Your task to perform on an android device: change notifications settings Image 0: 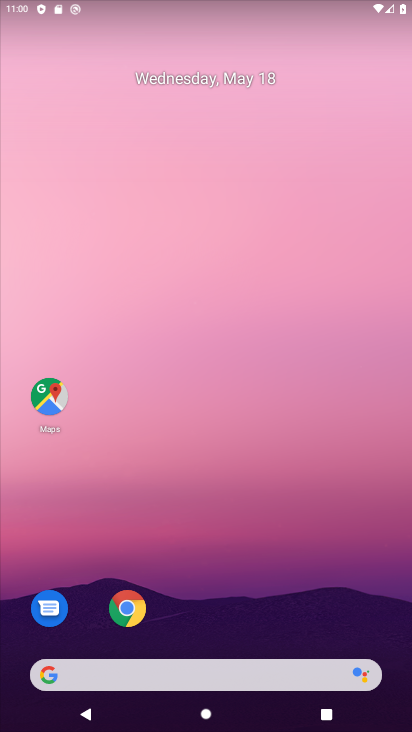
Step 0: drag from (228, 571) to (239, 6)
Your task to perform on an android device: change notifications settings Image 1: 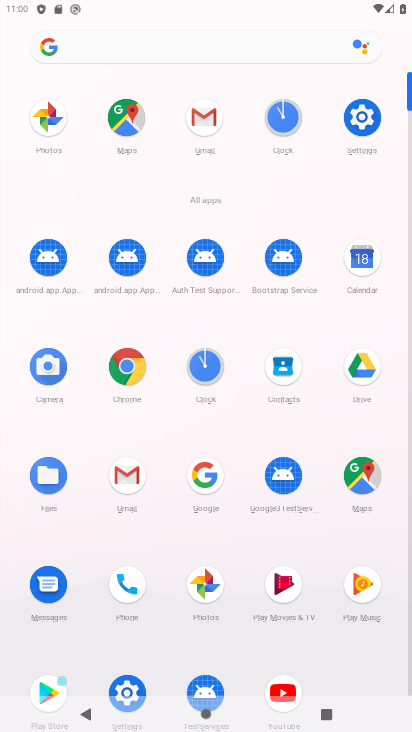
Step 1: click (362, 116)
Your task to perform on an android device: change notifications settings Image 2: 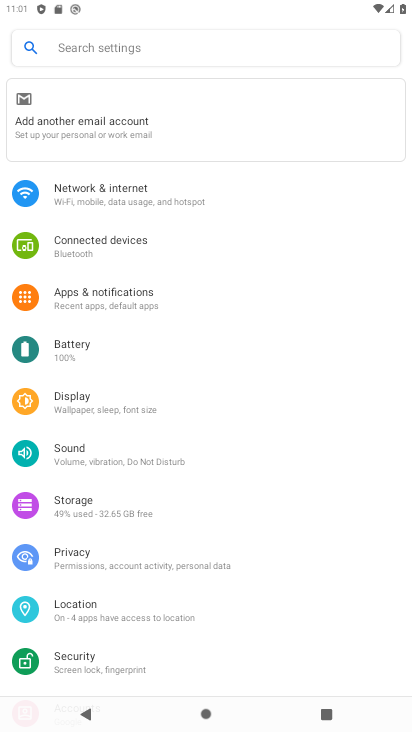
Step 2: click (125, 301)
Your task to perform on an android device: change notifications settings Image 3: 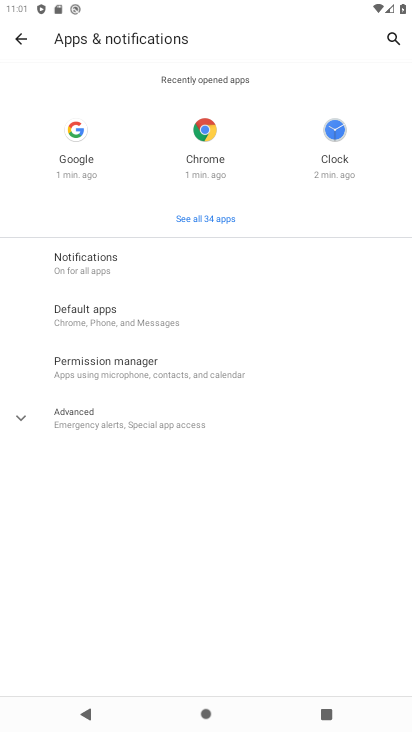
Step 3: click (90, 256)
Your task to perform on an android device: change notifications settings Image 4: 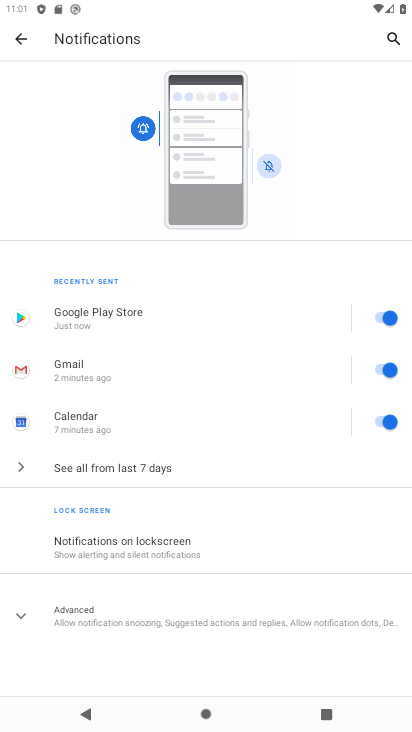
Step 4: drag from (149, 581) to (225, 488)
Your task to perform on an android device: change notifications settings Image 5: 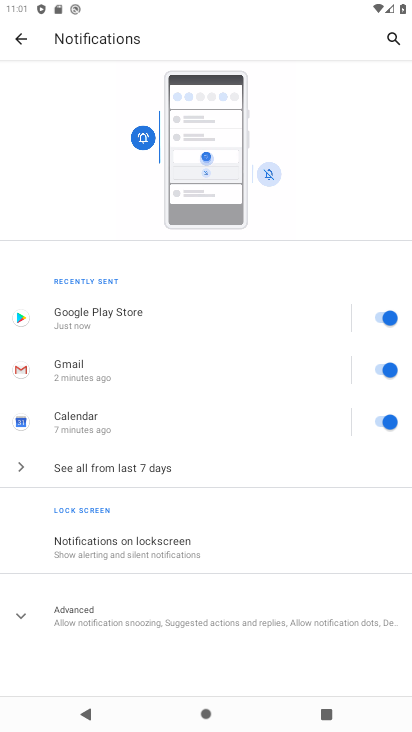
Step 5: click (151, 628)
Your task to perform on an android device: change notifications settings Image 6: 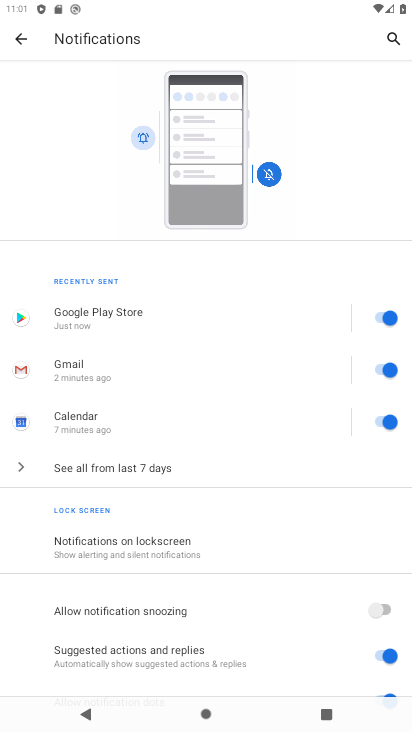
Step 6: drag from (189, 627) to (267, 500)
Your task to perform on an android device: change notifications settings Image 7: 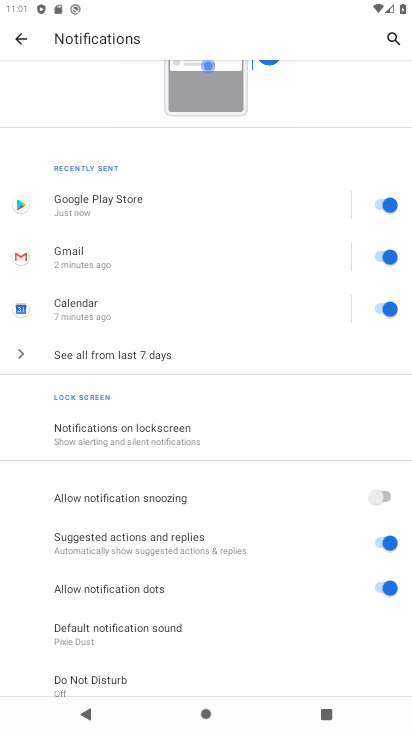
Step 7: click (374, 599)
Your task to perform on an android device: change notifications settings Image 8: 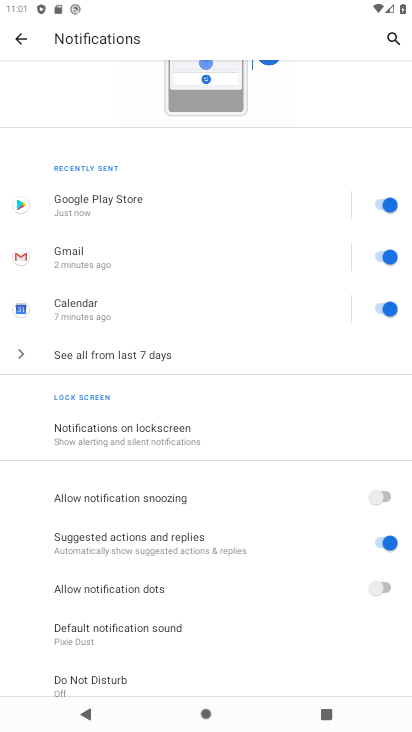
Step 8: task complete